Your task to perform on an android device: Open Chrome and go to settings Image 0: 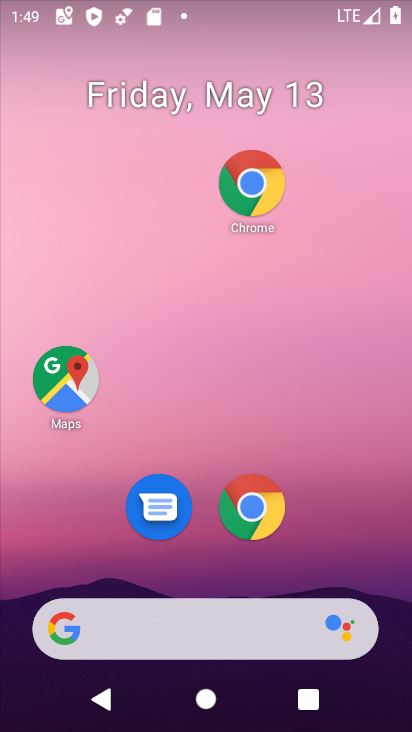
Step 0: drag from (0, 0) to (282, 56)
Your task to perform on an android device: Open Chrome and go to settings Image 1: 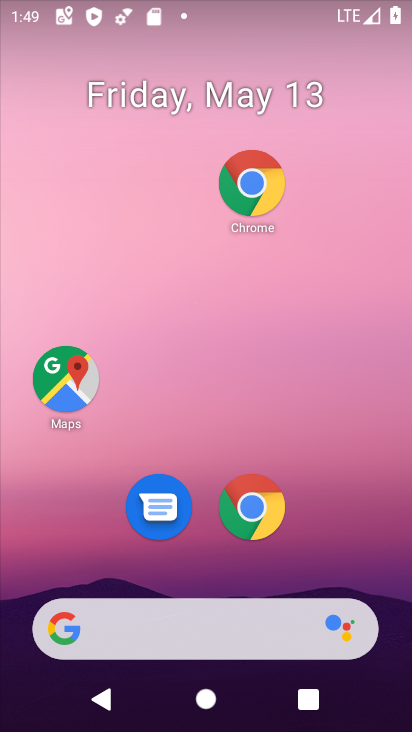
Step 1: drag from (324, 516) to (192, 0)
Your task to perform on an android device: Open Chrome and go to settings Image 2: 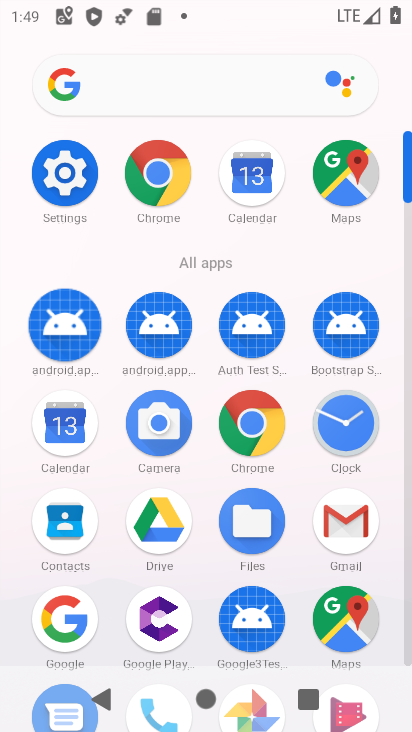
Step 2: drag from (297, 420) to (160, 34)
Your task to perform on an android device: Open Chrome and go to settings Image 3: 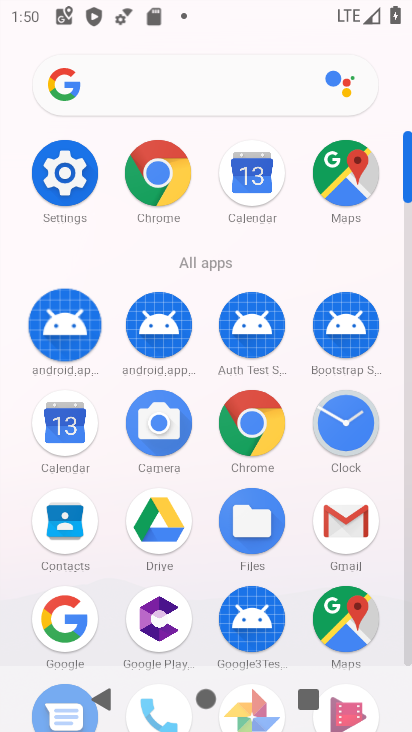
Step 3: click (157, 170)
Your task to perform on an android device: Open Chrome and go to settings Image 4: 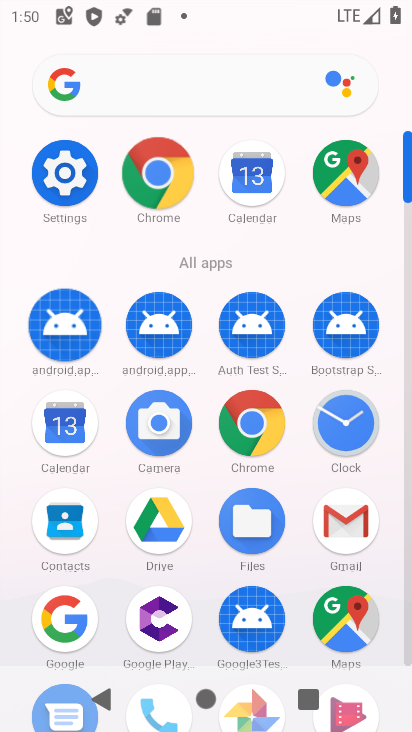
Step 4: click (158, 169)
Your task to perform on an android device: Open Chrome and go to settings Image 5: 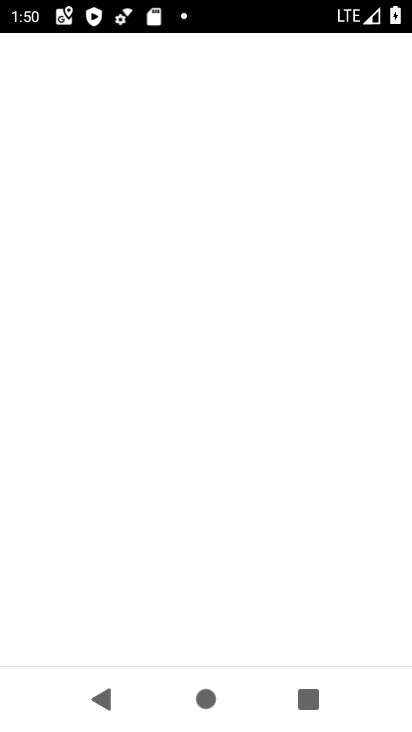
Step 5: click (158, 168)
Your task to perform on an android device: Open Chrome and go to settings Image 6: 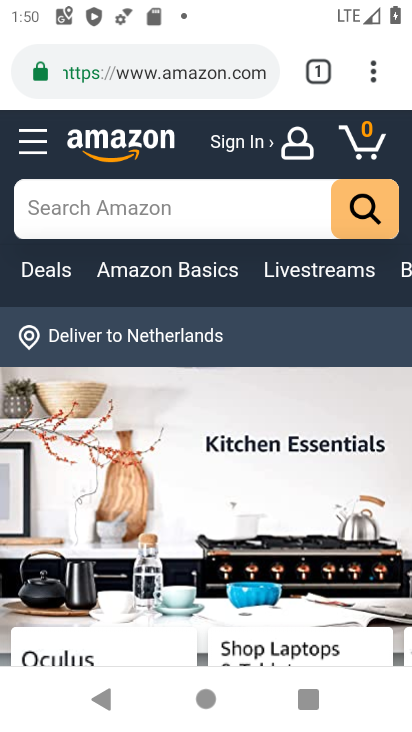
Step 6: drag from (374, 64) to (94, 15)
Your task to perform on an android device: Open Chrome and go to settings Image 7: 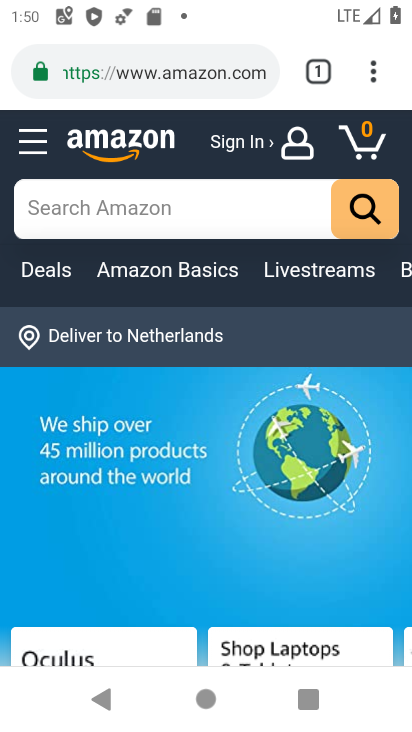
Step 7: drag from (141, 362) to (109, 0)
Your task to perform on an android device: Open Chrome and go to settings Image 8: 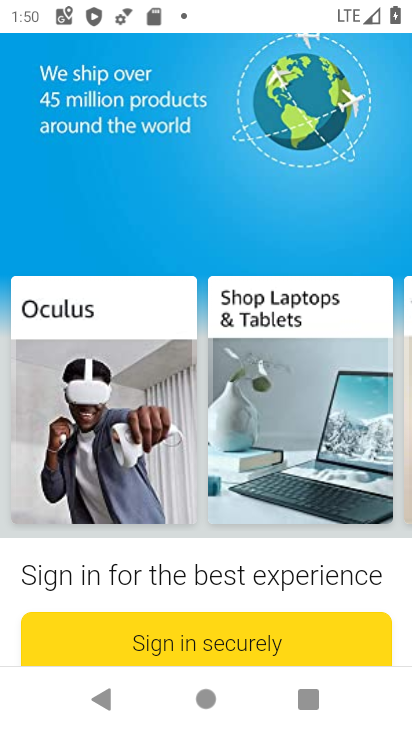
Step 8: press back button
Your task to perform on an android device: Open Chrome and go to settings Image 9: 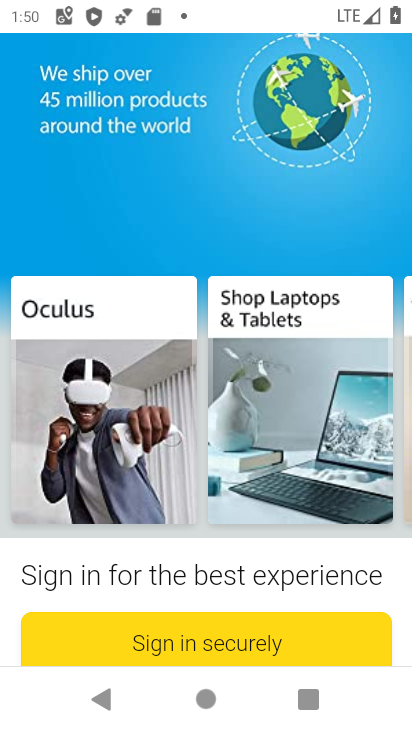
Step 9: press back button
Your task to perform on an android device: Open Chrome and go to settings Image 10: 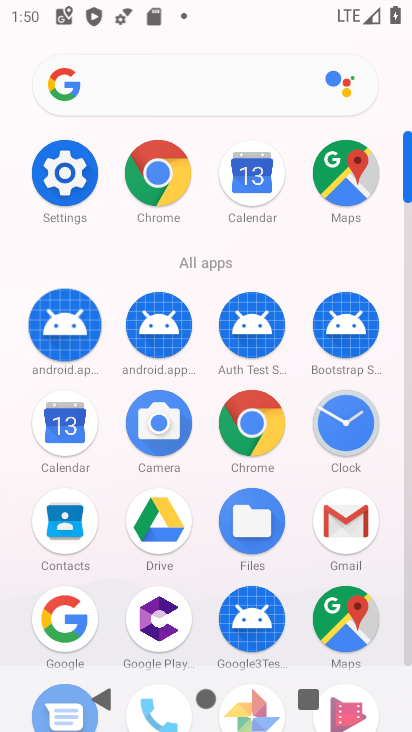
Step 10: click (139, 188)
Your task to perform on an android device: Open Chrome and go to settings Image 11: 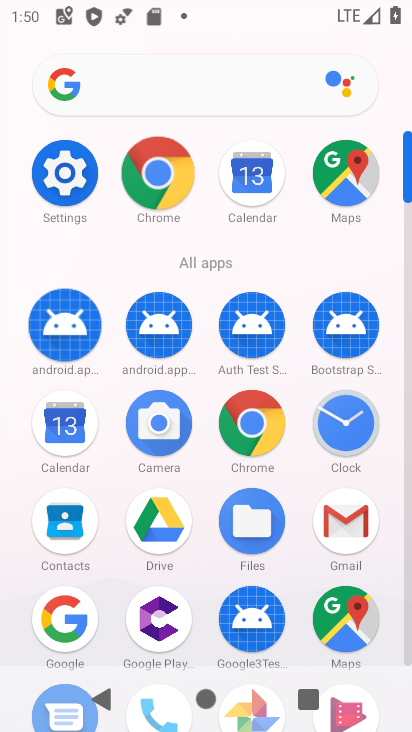
Step 11: click (161, 172)
Your task to perform on an android device: Open Chrome and go to settings Image 12: 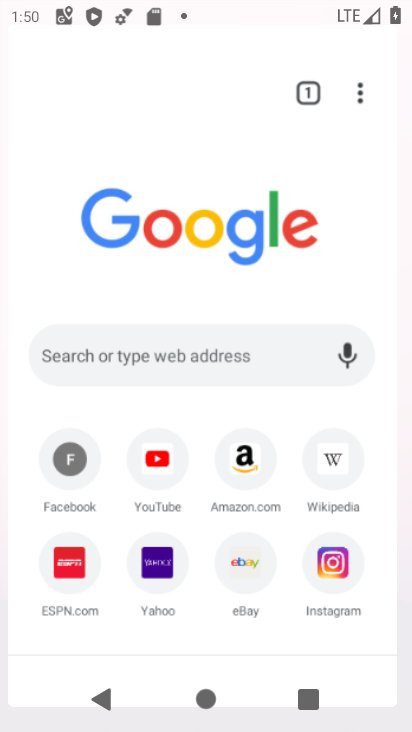
Step 12: click (161, 172)
Your task to perform on an android device: Open Chrome and go to settings Image 13: 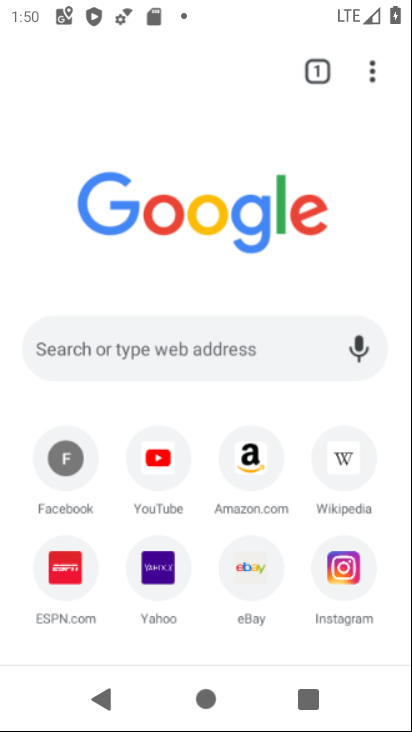
Step 13: click (161, 172)
Your task to perform on an android device: Open Chrome and go to settings Image 14: 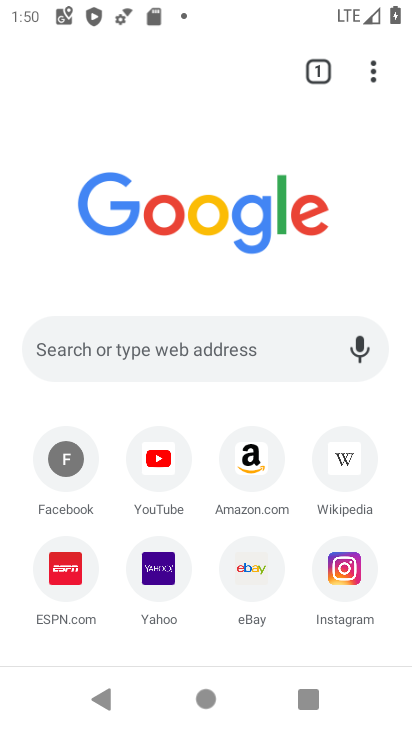
Step 14: drag from (373, 68) to (111, 374)
Your task to perform on an android device: Open Chrome and go to settings Image 15: 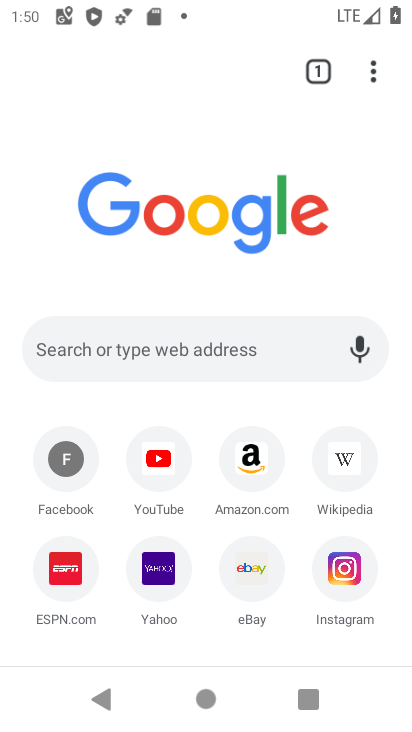
Step 15: drag from (147, 419) to (110, 14)
Your task to perform on an android device: Open Chrome and go to settings Image 16: 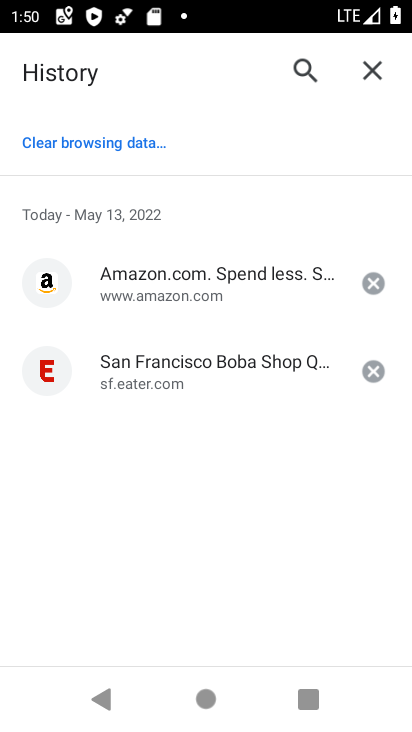
Step 16: click (366, 48)
Your task to perform on an android device: Open Chrome and go to settings Image 17: 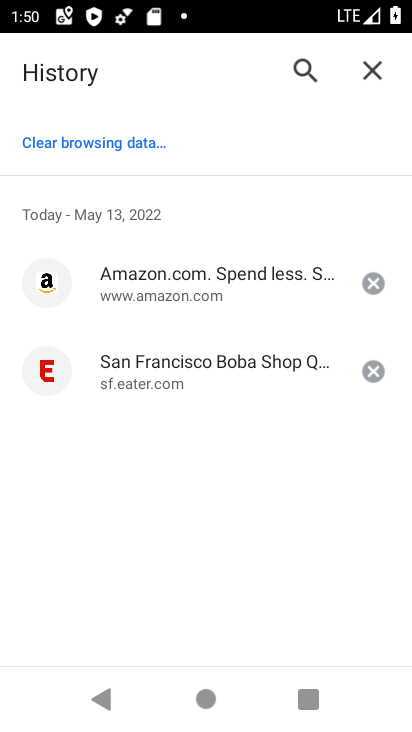
Step 17: click (366, 68)
Your task to perform on an android device: Open Chrome and go to settings Image 18: 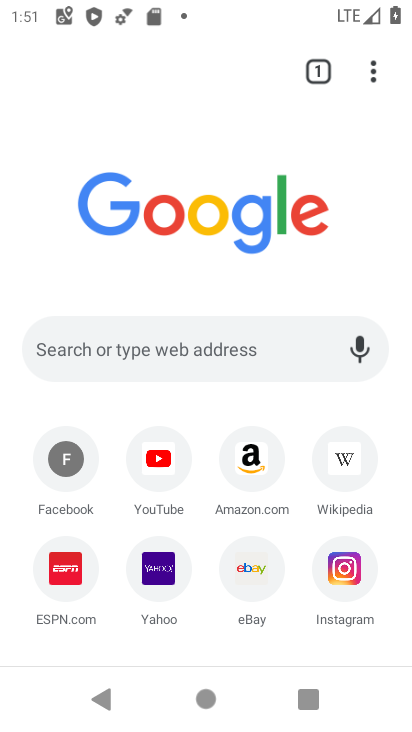
Step 18: click (373, 68)
Your task to perform on an android device: Open Chrome and go to settings Image 19: 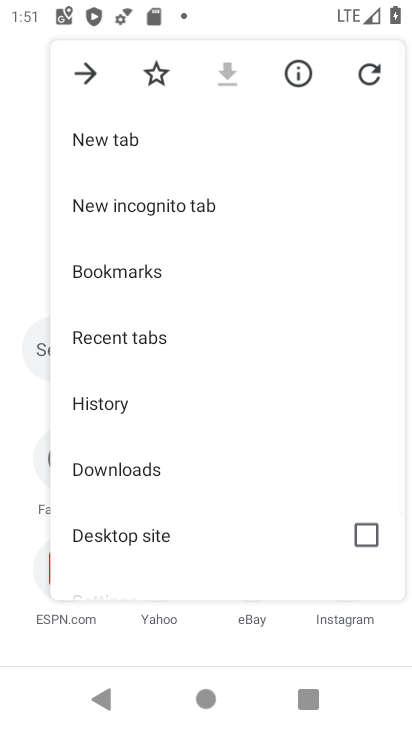
Step 19: drag from (147, 520) to (54, 79)
Your task to perform on an android device: Open Chrome and go to settings Image 20: 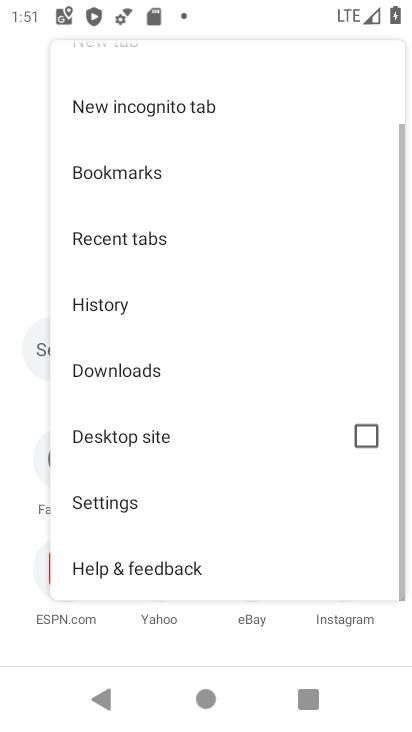
Step 20: drag from (161, 403) to (113, 55)
Your task to perform on an android device: Open Chrome and go to settings Image 21: 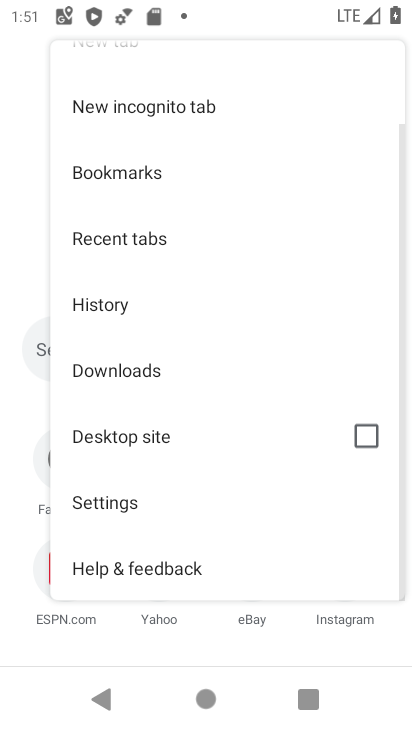
Step 21: click (101, 499)
Your task to perform on an android device: Open Chrome and go to settings Image 22: 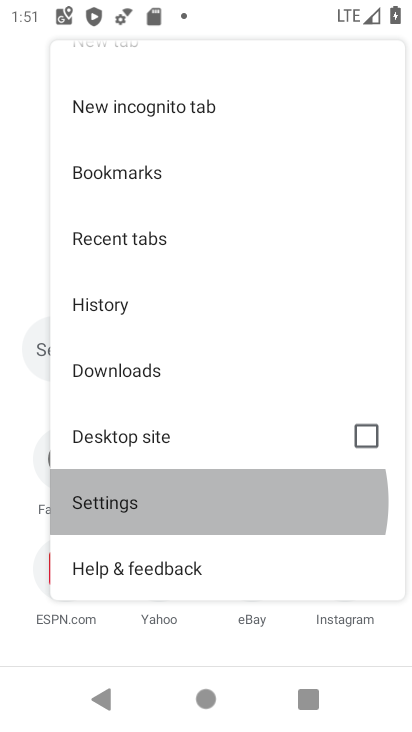
Step 22: click (101, 499)
Your task to perform on an android device: Open Chrome and go to settings Image 23: 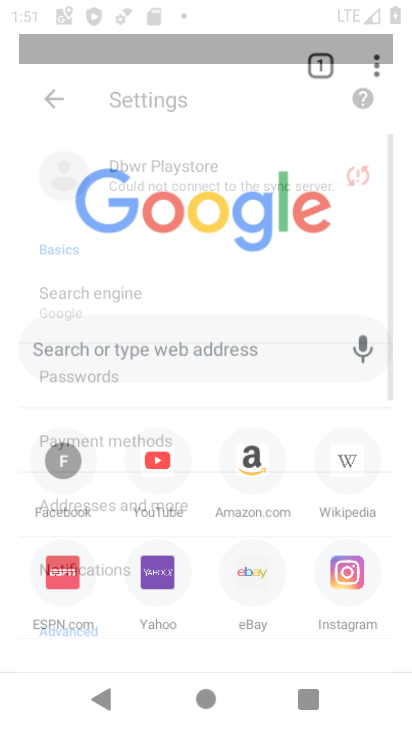
Step 23: click (101, 499)
Your task to perform on an android device: Open Chrome and go to settings Image 24: 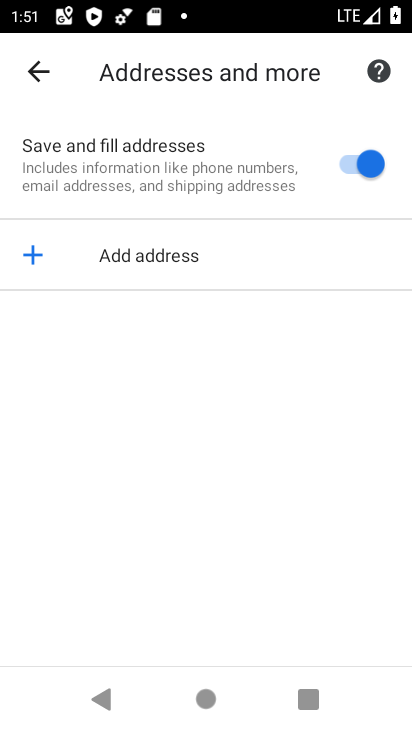
Step 24: click (28, 71)
Your task to perform on an android device: Open Chrome and go to settings Image 25: 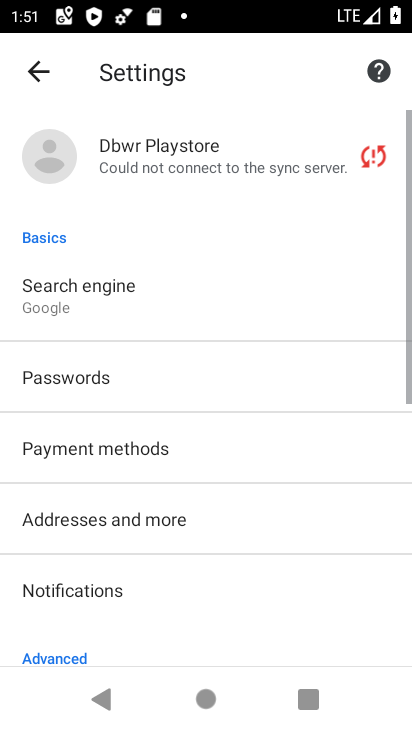
Step 25: task complete